Your task to perform on an android device: Open Wikipedia Image 0: 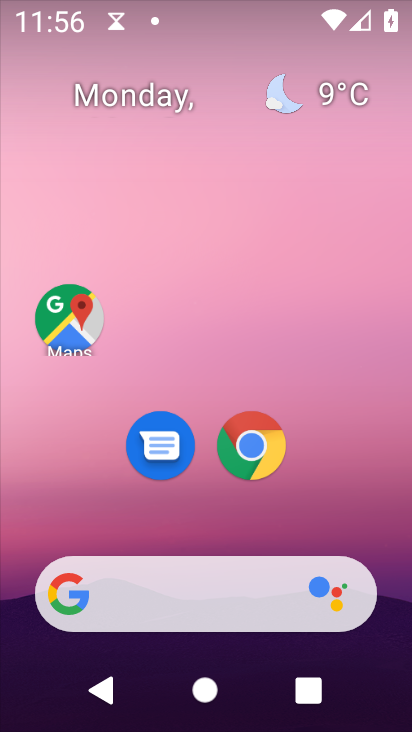
Step 0: drag from (290, 561) to (310, 0)
Your task to perform on an android device: Open Wikipedia Image 1: 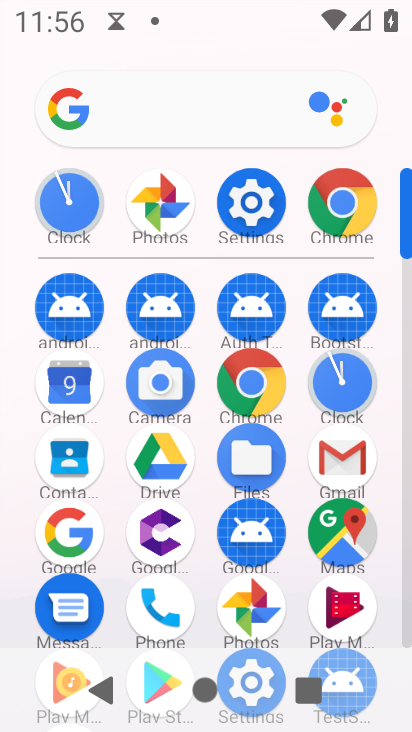
Step 1: click (243, 389)
Your task to perform on an android device: Open Wikipedia Image 2: 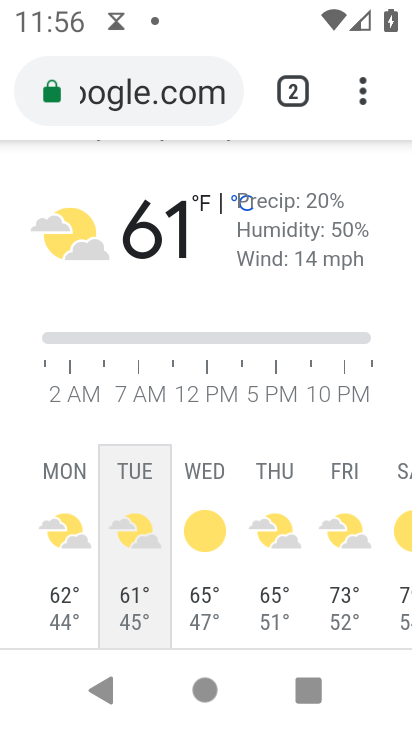
Step 2: click (193, 94)
Your task to perform on an android device: Open Wikipedia Image 3: 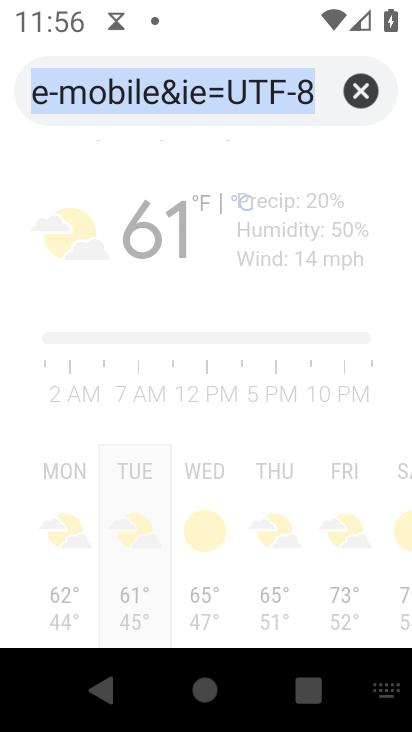
Step 3: click (360, 98)
Your task to perform on an android device: Open Wikipedia Image 4: 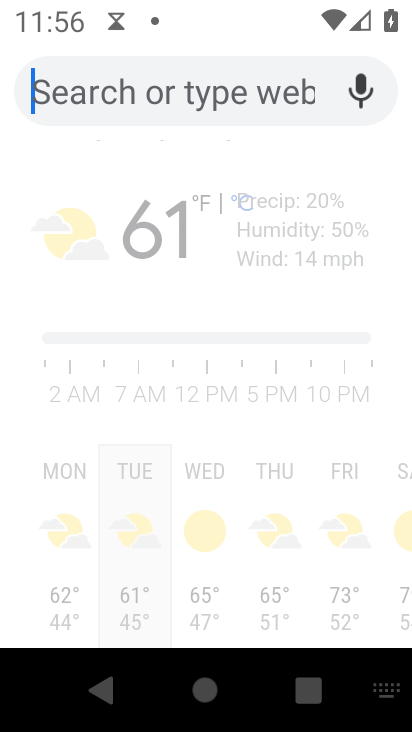
Step 4: type "wikipedia"
Your task to perform on an android device: Open Wikipedia Image 5: 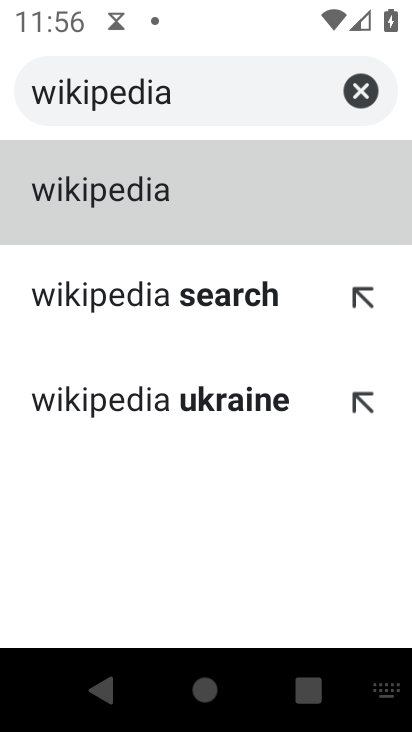
Step 5: click (126, 166)
Your task to perform on an android device: Open Wikipedia Image 6: 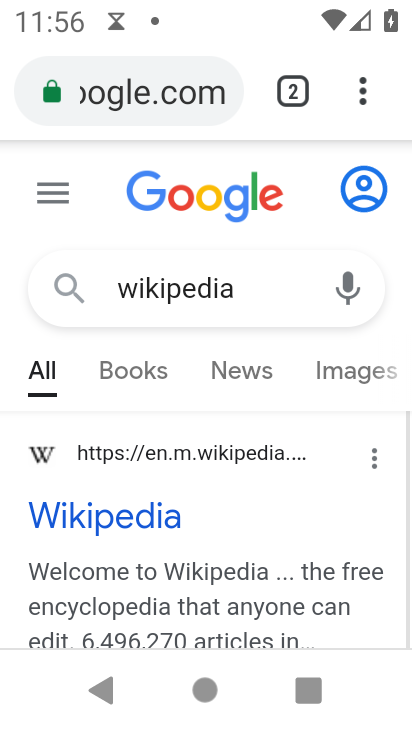
Step 6: task complete